Your task to perform on an android device: set an alarm Image 0: 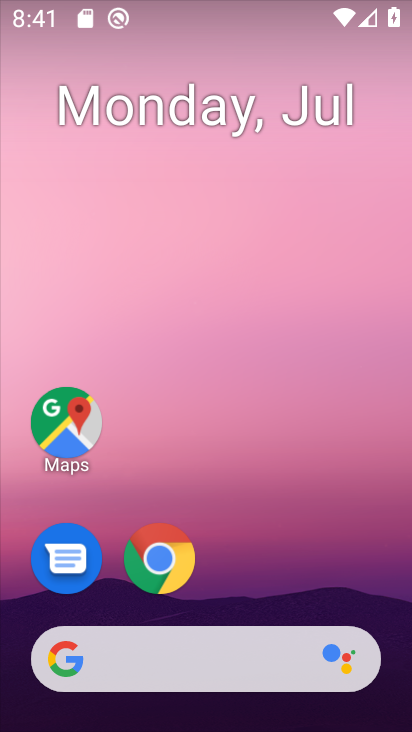
Step 0: drag from (308, 579) to (330, 88)
Your task to perform on an android device: set an alarm Image 1: 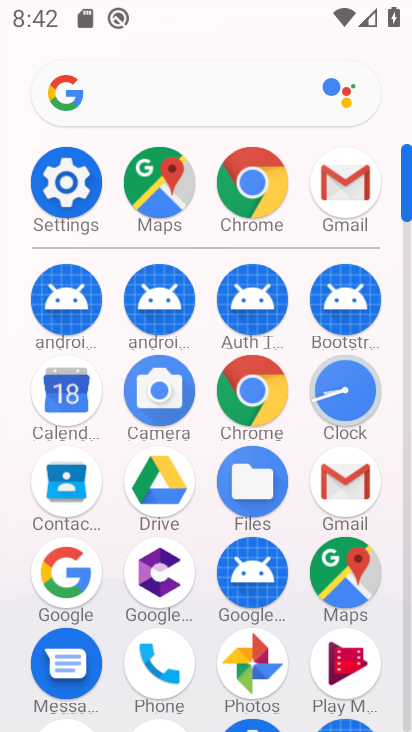
Step 1: click (346, 388)
Your task to perform on an android device: set an alarm Image 2: 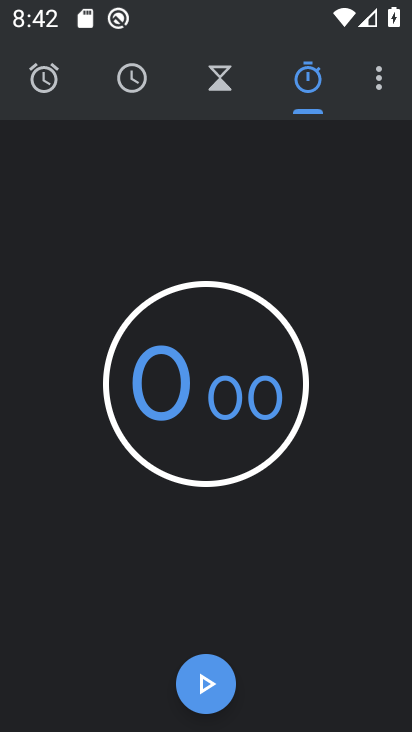
Step 2: click (43, 83)
Your task to perform on an android device: set an alarm Image 3: 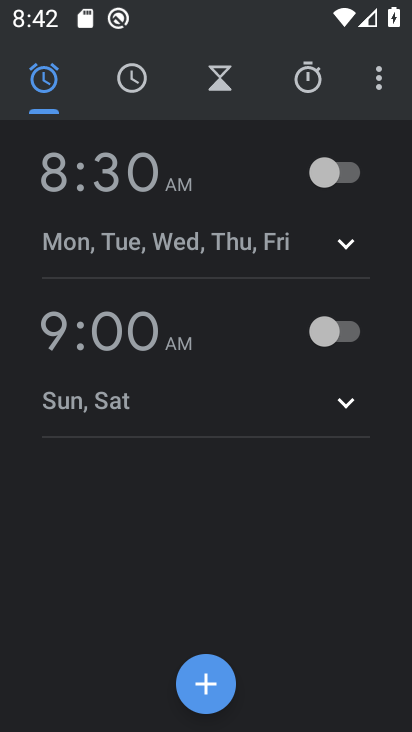
Step 3: click (210, 683)
Your task to perform on an android device: set an alarm Image 4: 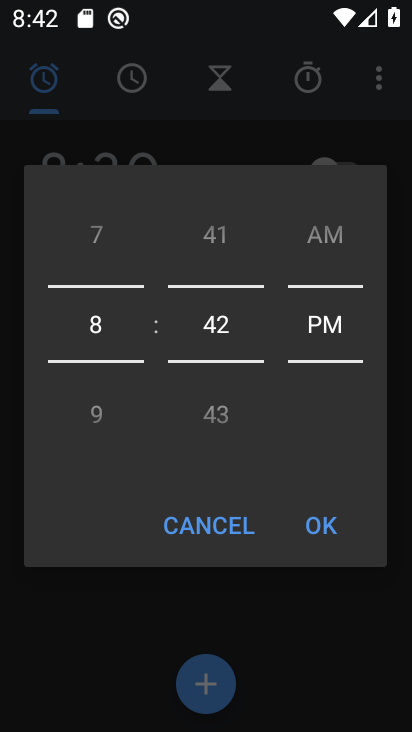
Step 4: click (318, 536)
Your task to perform on an android device: set an alarm Image 5: 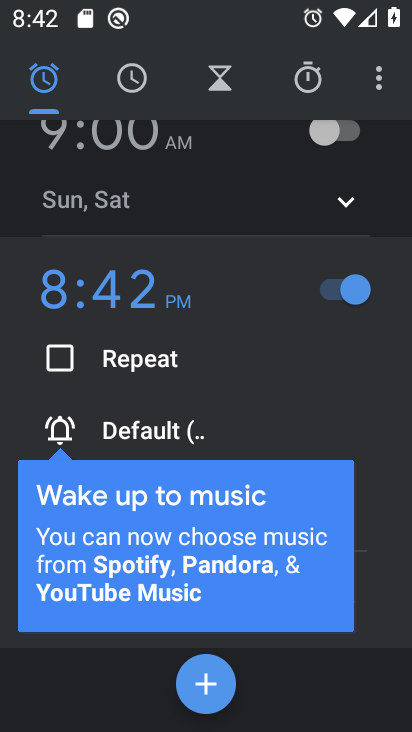
Step 5: task complete